Your task to perform on an android device: open app "Yahoo Mail" Image 0: 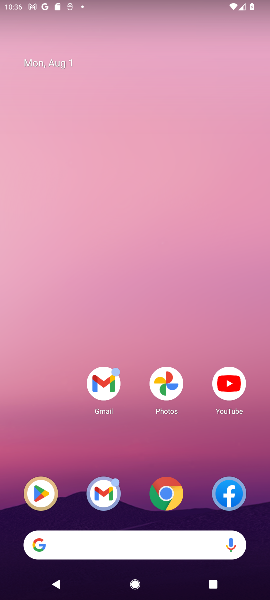
Step 0: task complete